Your task to perform on an android device: Do I have any events this weekend? Image 0: 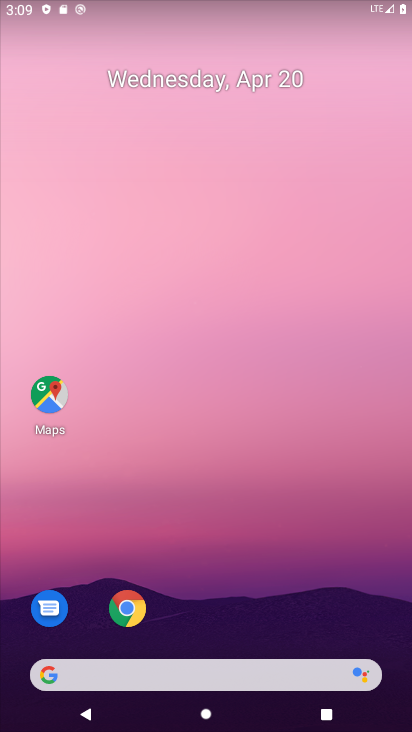
Step 0: drag from (227, 656) to (309, 71)
Your task to perform on an android device: Do I have any events this weekend? Image 1: 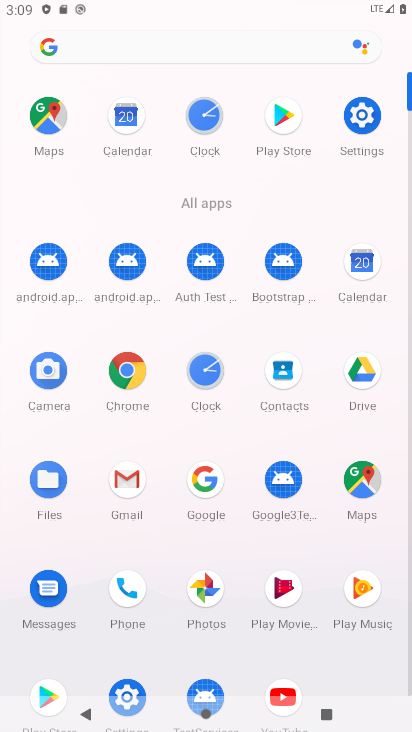
Step 1: click (364, 258)
Your task to perform on an android device: Do I have any events this weekend? Image 2: 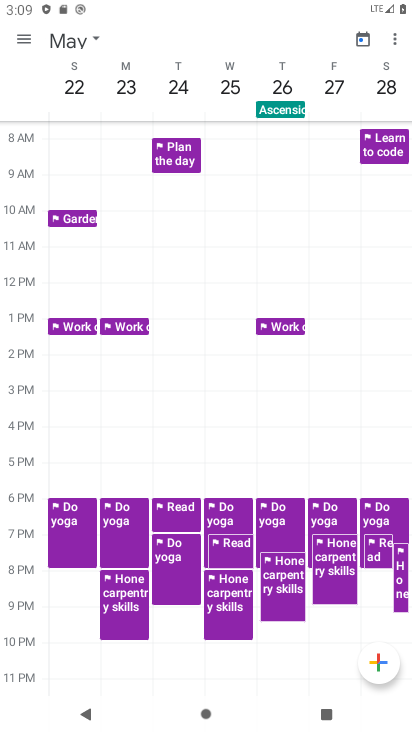
Step 2: click (359, 35)
Your task to perform on an android device: Do I have any events this weekend? Image 3: 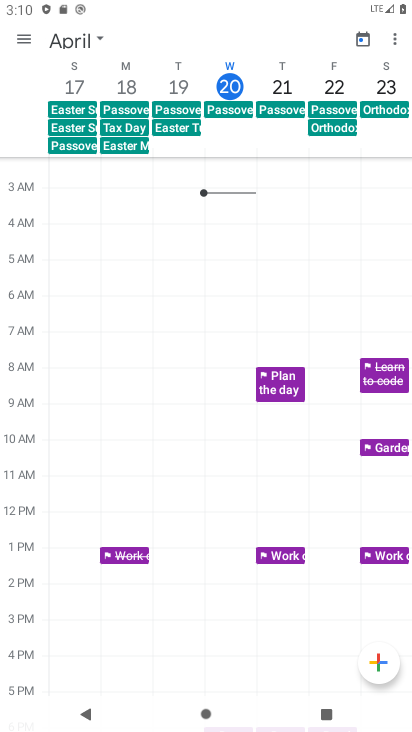
Step 3: task complete